Your task to perform on an android device: turn pop-ups off in chrome Image 0: 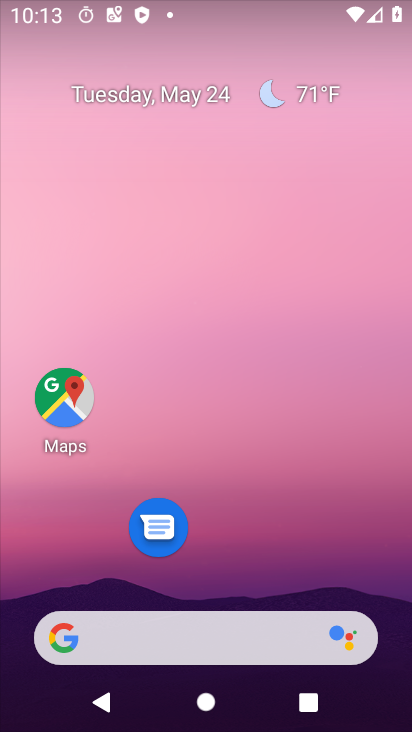
Step 0: drag from (235, 562) to (235, 56)
Your task to perform on an android device: turn pop-ups off in chrome Image 1: 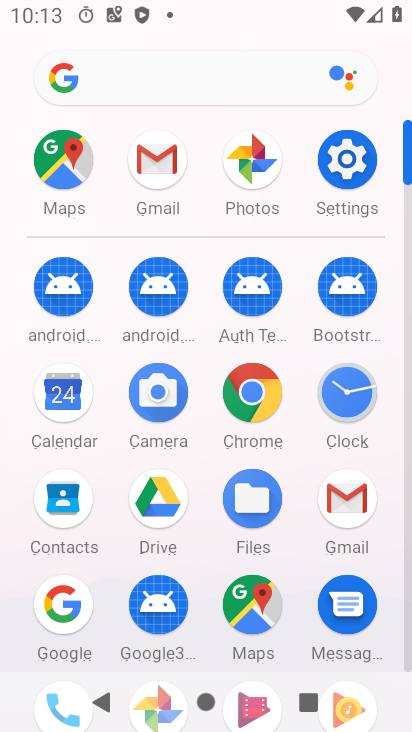
Step 1: click (249, 378)
Your task to perform on an android device: turn pop-ups off in chrome Image 2: 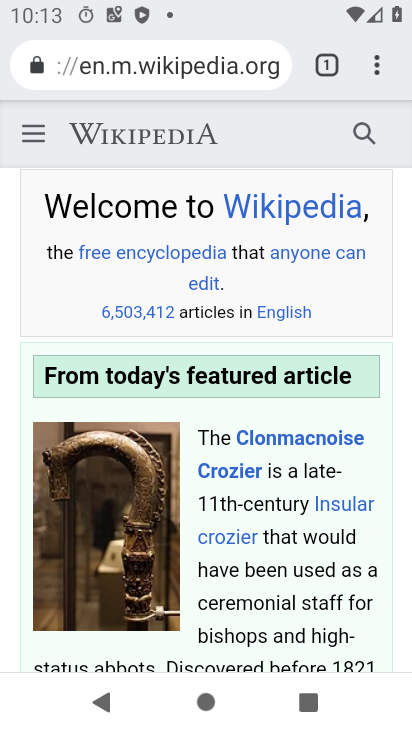
Step 2: click (371, 69)
Your task to perform on an android device: turn pop-ups off in chrome Image 3: 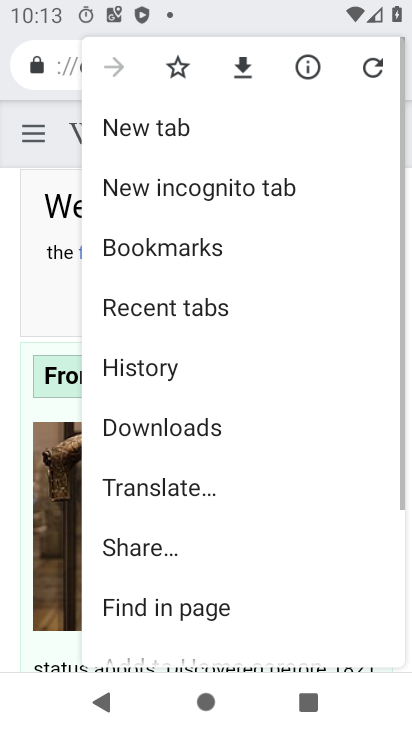
Step 3: drag from (258, 584) to (255, 107)
Your task to perform on an android device: turn pop-ups off in chrome Image 4: 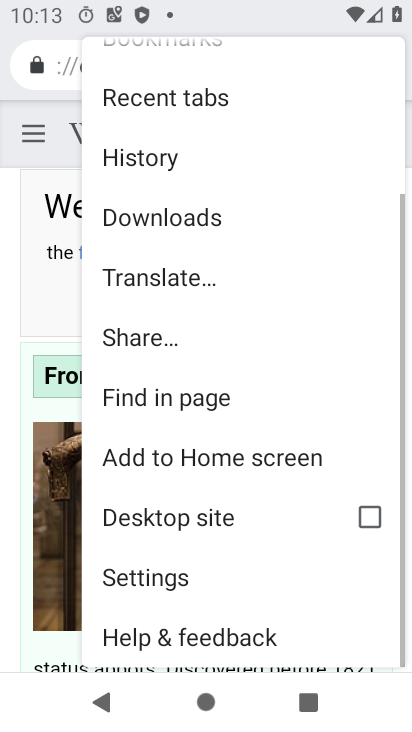
Step 4: click (158, 573)
Your task to perform on an android device: turn pop-ups off in chrome Image 5: 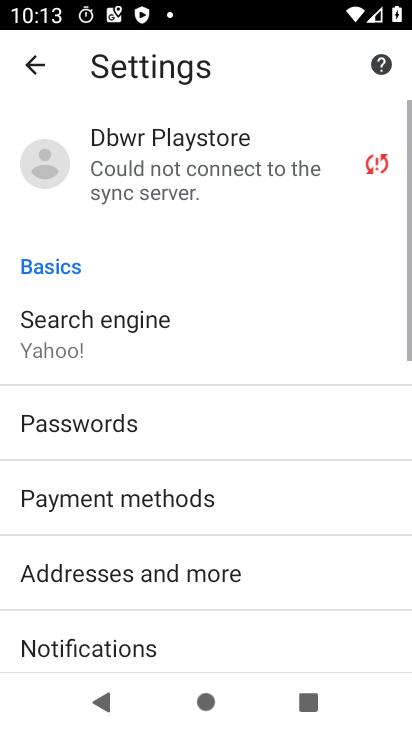
Step 5: drag from (261, 556) to (233, 47)
Your task to perform on an android device: turn pop-ups off in chrome Image 6: 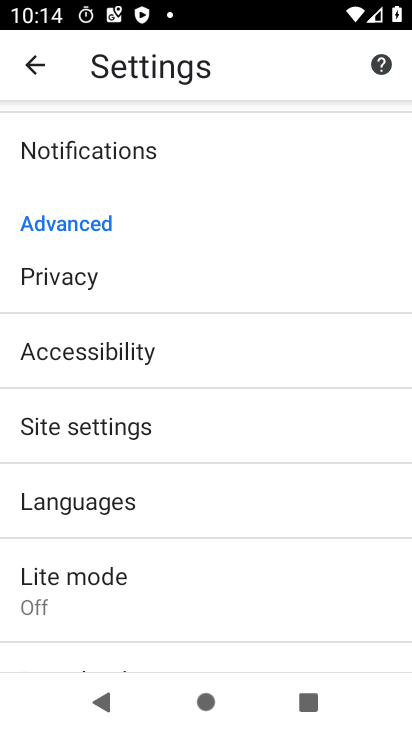
Step 6: click (163, 411)
Your task to perform on an android device: turn pop-ups off in chrome Image 7: 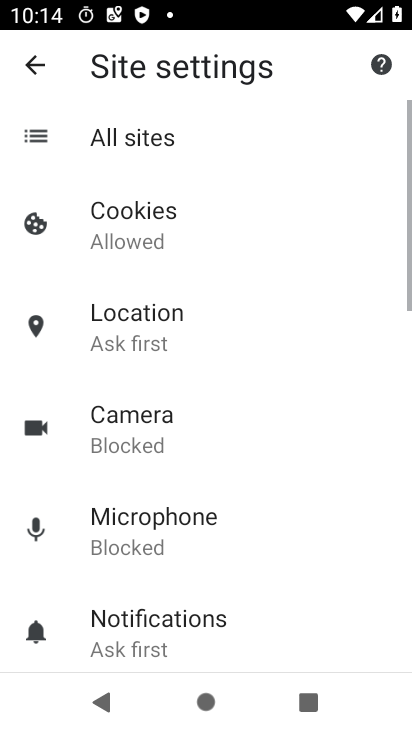
Step 7: drag from (228, 615) to (255, 234)
Your task to perform on an android device: turn pop-ups off in chrome Image 8: 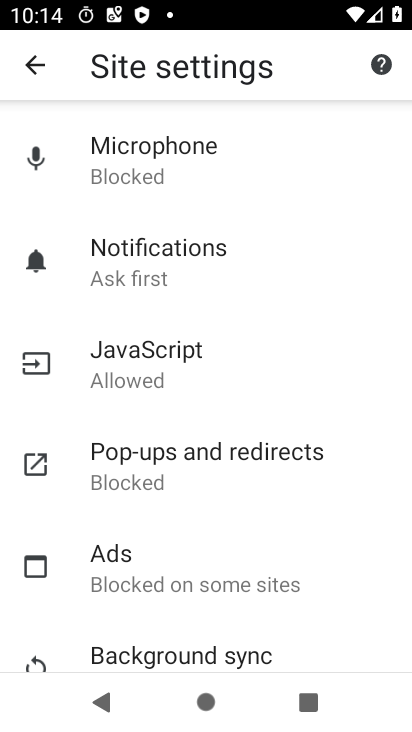
Step 8: click (240, 454)
Your task to perform on an android device: turn pop-ups off in chrome Image 9: 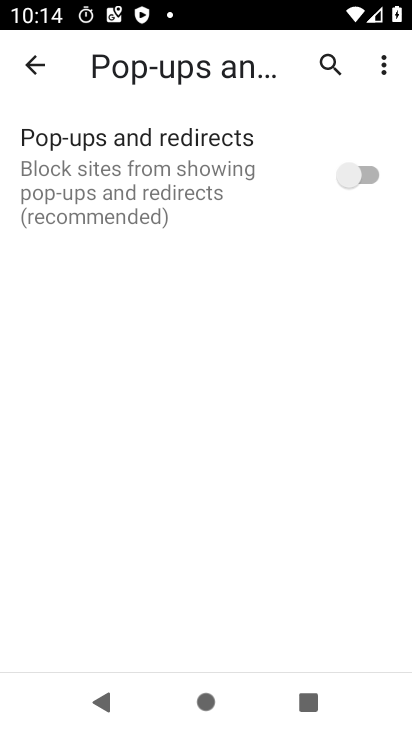
Step 9: task complete